Your task to perform on an android device: Open calendar and show me the second week of next month Image 0: 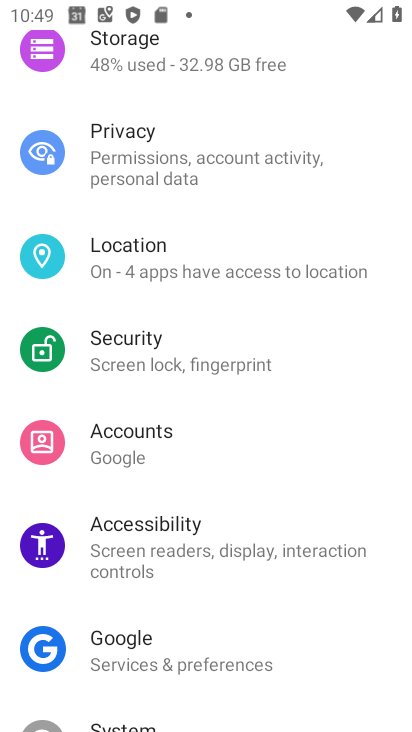
Step 0: press home button
Your task to perform on an android device: Open calendar and show me the second week of next month Image 1: 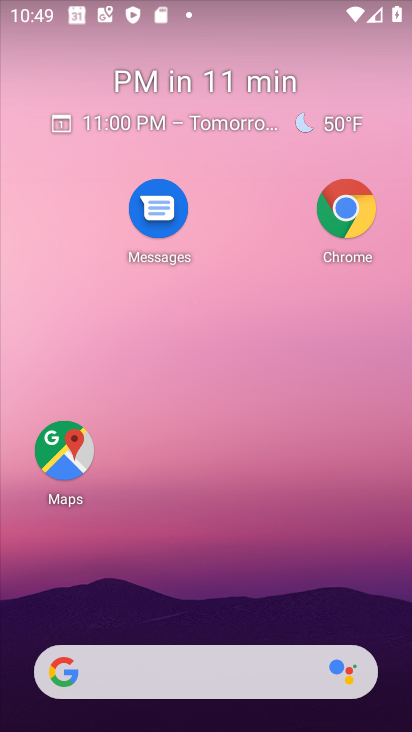
Step 1: drag from (208, 645) to (370, 33)
Your task to perform on an android device: Open calendar and show me the second week of next month Image 2: 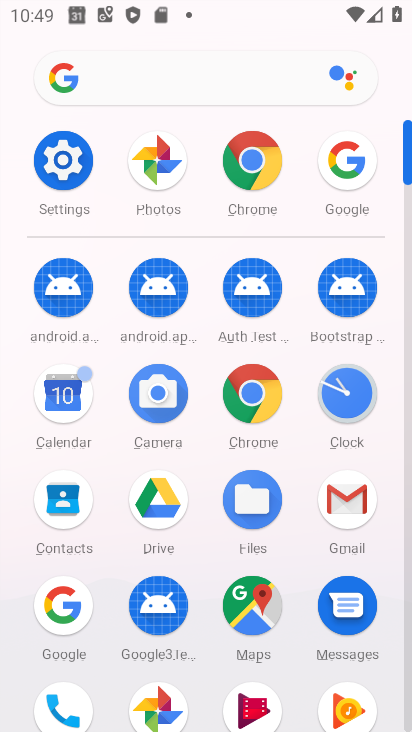
Step 2: click (73, 387)
Your task to perform on an android device: Open calendar and show me the second week of next month Image 3: 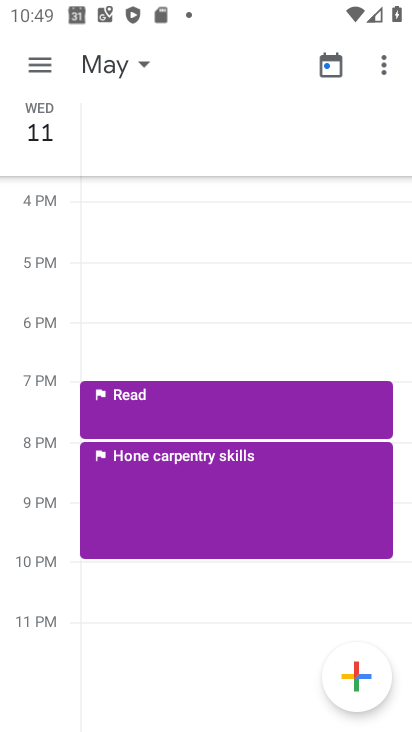
Step 3: click (38, 79)
Your task to perform on an android device: Open calendar and show me the second week of next month Image 4: 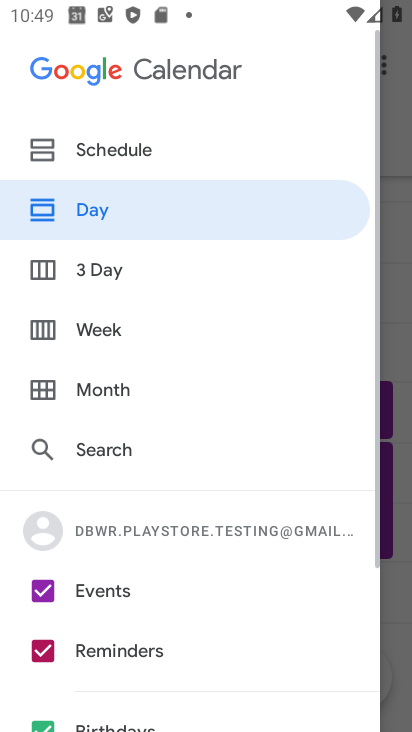
Step 4: click (131, 330)
Your task to perform on an android device: Open calendar and show me the second week of next month Image 5: 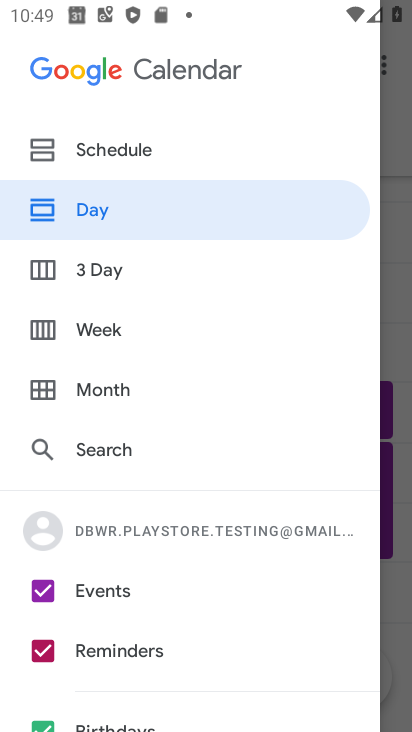
Step 5: click (64, 324)
Your task to perform on an android device: Open calendar and show me the second week of next month Image 6: 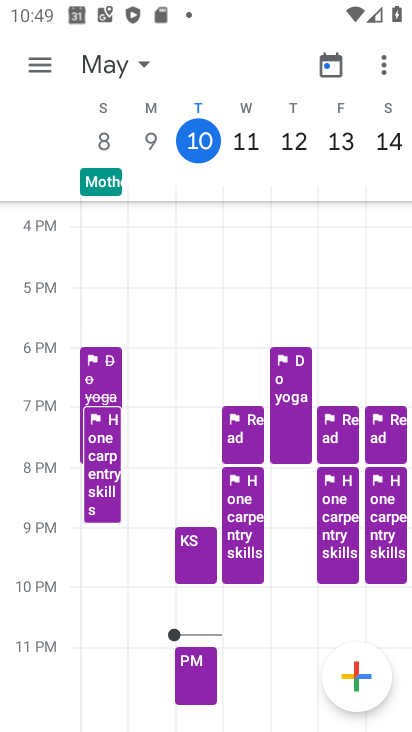
Step 6: task complete